Your task to perform on an android device: allow cookies in the chrome app Image 0: 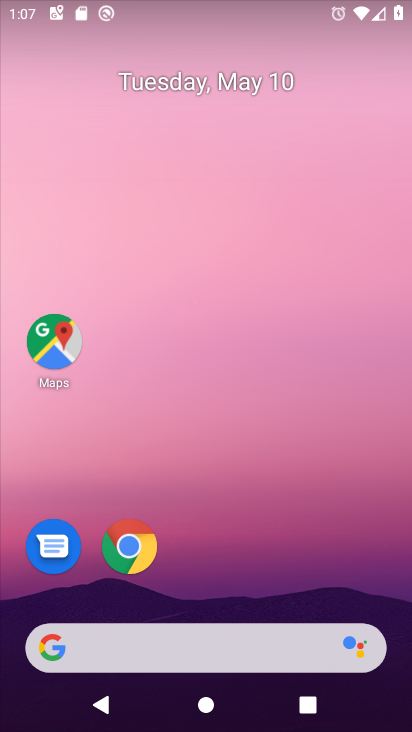
Step 0: click (121, 564)
Your task to perform on an android device: allow cookies in the chrome app Image 1: 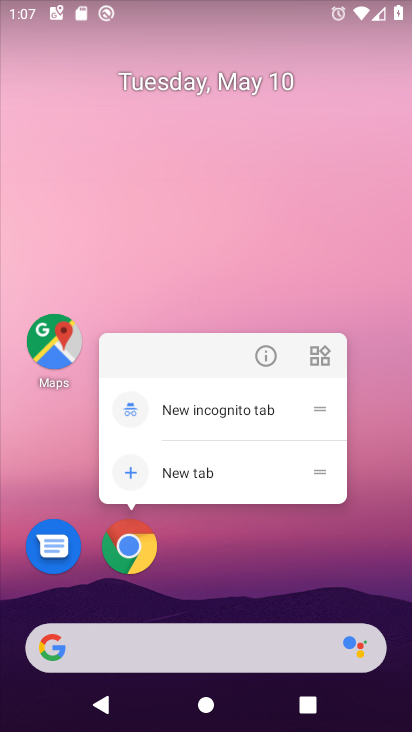
Step 1: click (121, 564)
Your task to perform on an android device: allow cookies in the chrome app Image 2: 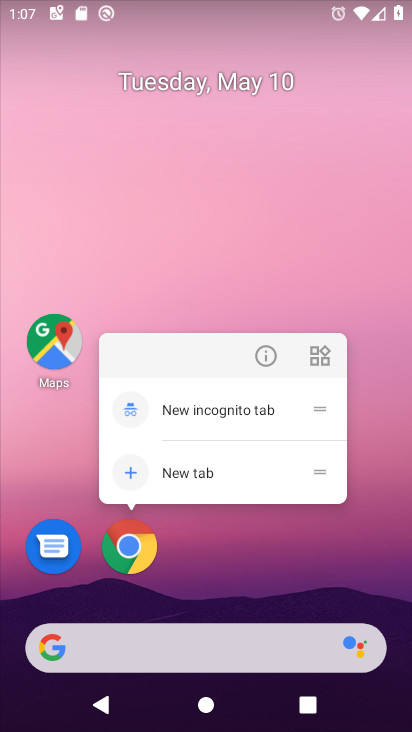
Step 2: click (121, 564)
Your task to perform on an android device: allow cookies in the chrome app Image 3: 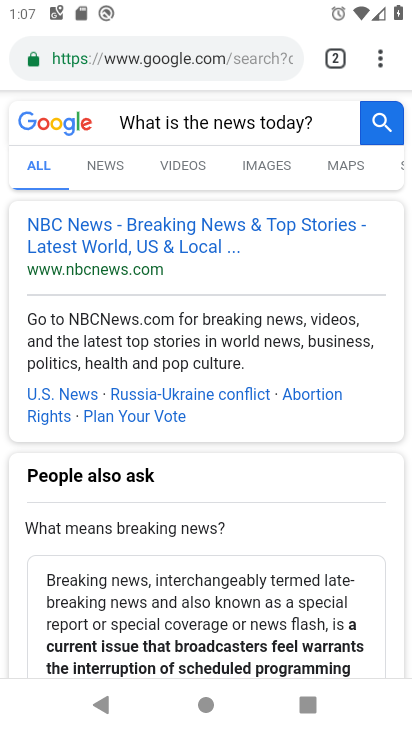
Step 3: drag from (373, 56) to (220, 582)
Your task to perform on an android device: allow cookies in the chrome app Image 4: 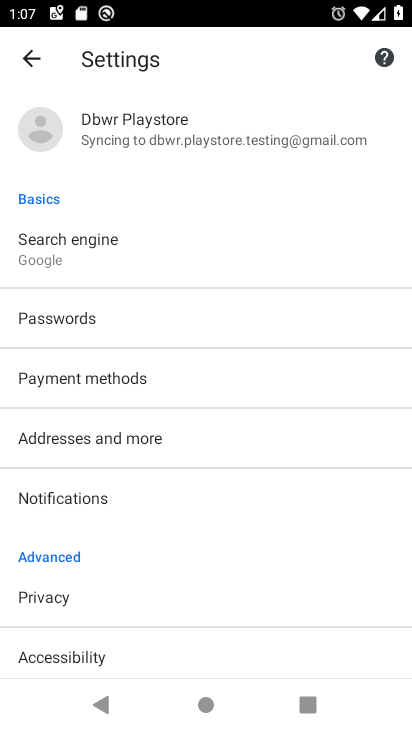
Step 4: drag from (174, 593) to (176, 220)
Your task to perform on an android device: allow cookies in the chrome app Image 5: 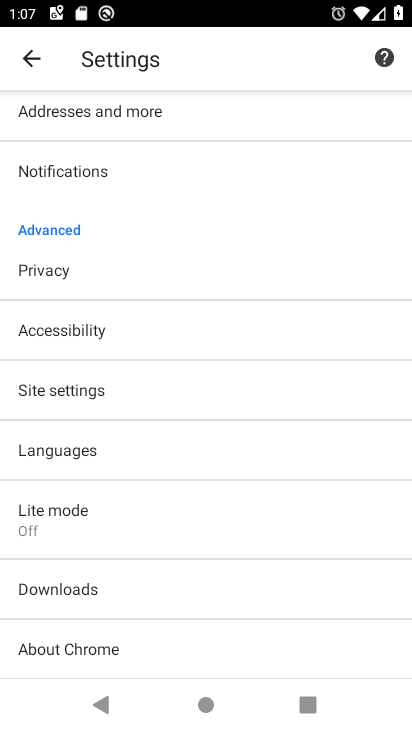
Step 5: click (144, 390)
Your task to perform on an android device: allow cookies in the chrome app Image 6: 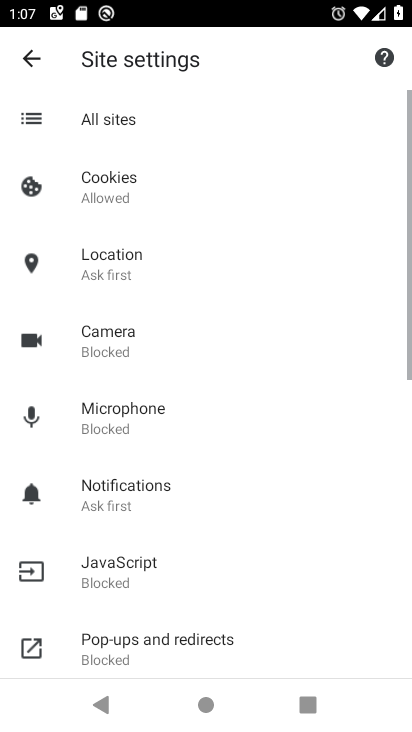
Step 6: click (112, 206)
Your task to perform on an android device: allow cookies in the chrome app Image 7: 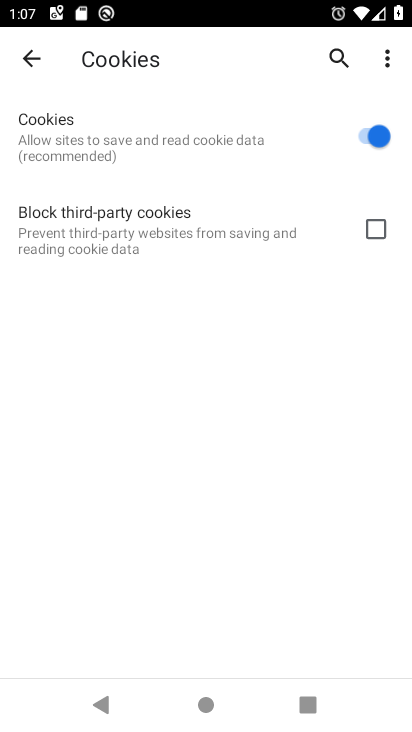
Step 7: task complete